Your task to perform on an android device: check google app version Image 0: 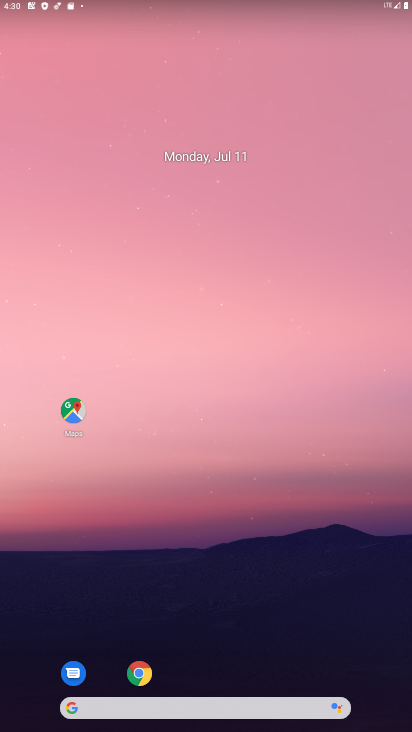
Step 0: drag from (320, 565) to (314, 144)
Your task to perform on an android device: check google app version Image 1: 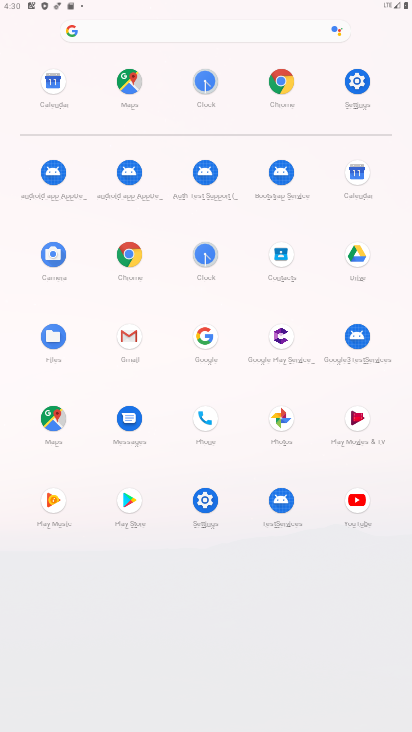
Step 1: click (210, 338)
Your task to perform on an android device: check google app version Image 2: 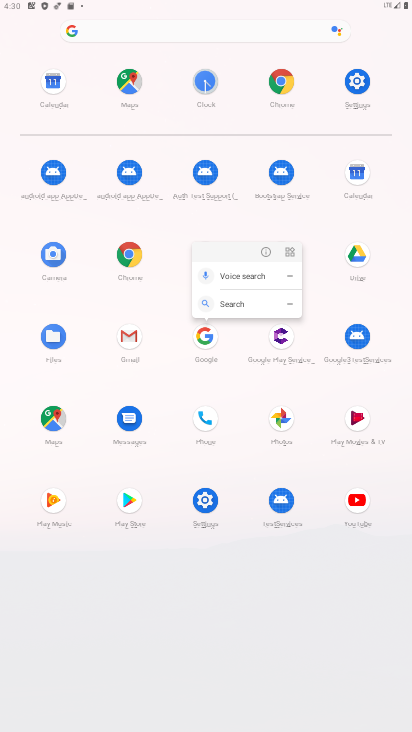
Step 2: click (265, 249)
Your task to perform on an android device: check google app version Image 3: 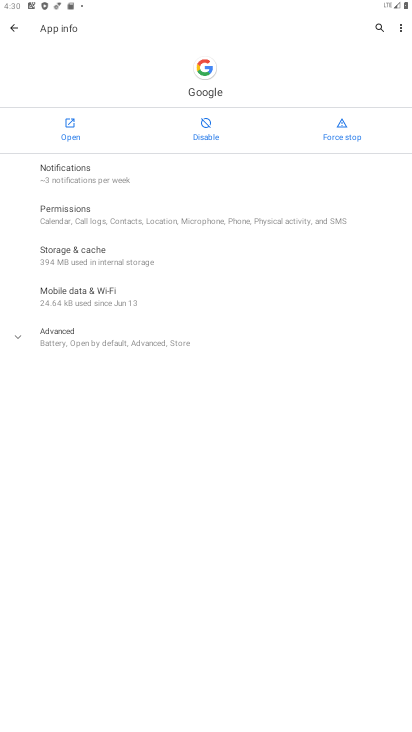
Step 3: click (130, 352)
Your task to perform on an android device: check google app version Image 4: 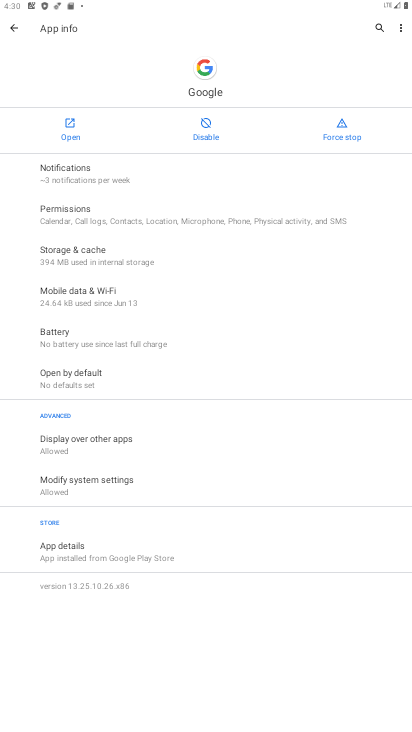
Step 4: click (75, 590)
Your task to perform on an android device: check google app version Image 5: 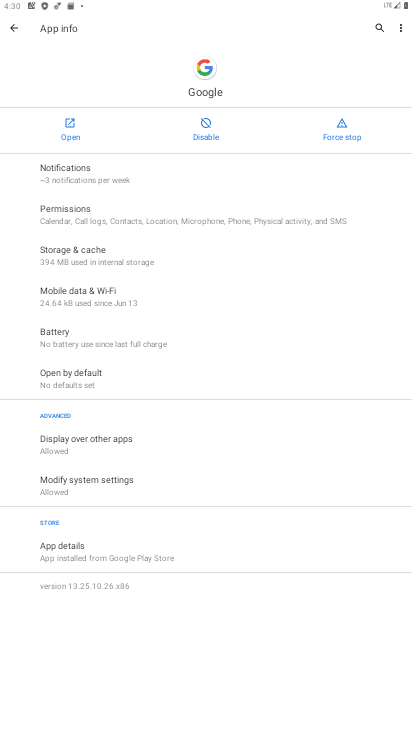
Step 5: task complete